Your task to perform on an android device: Go to network settings Image 0: 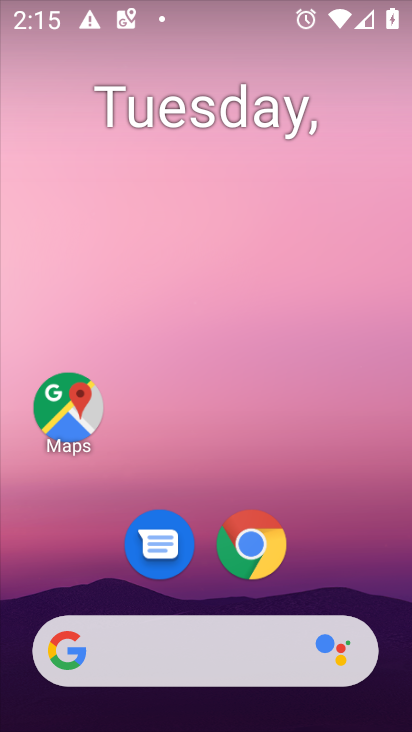
Step 0: drag from (325, 447) to (283, 93)
Your task to perform on an android device: Go to network settings Image 1: 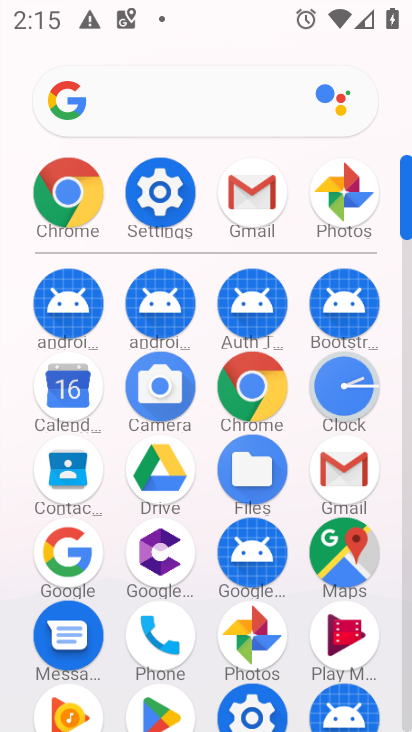
Step 1: click (159, 190)
Your task to perform on an android device: Go to network settings Image 2: 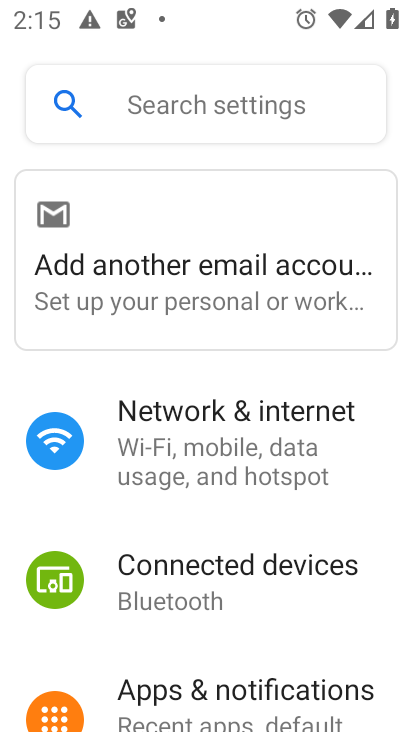
Step 2: click (192, 414)
Your task to perform on an android device: Go to network settings Image 3: 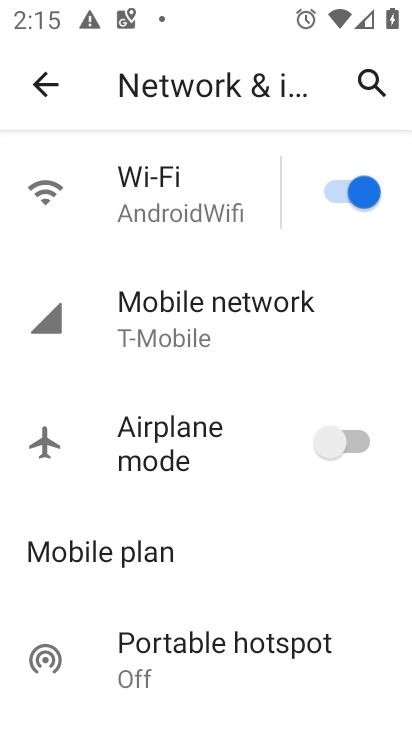
Step 3: task complete